Your task to perform on an android device: change the clock style Image 0: 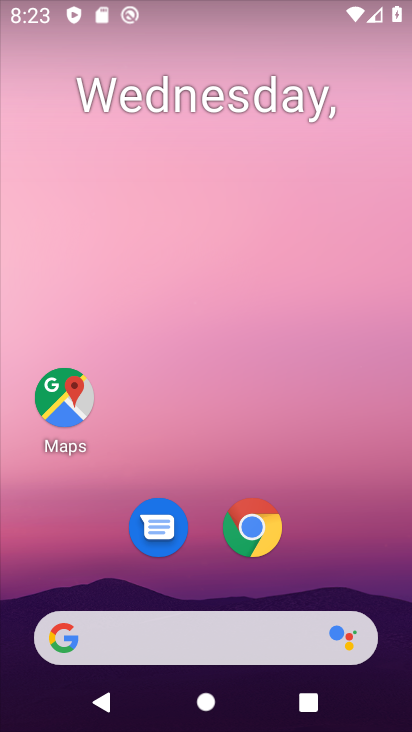
Step 0: drag from (359, 600) to (353, 111)
Your task to perform on an android device: change the clock style Image 1: 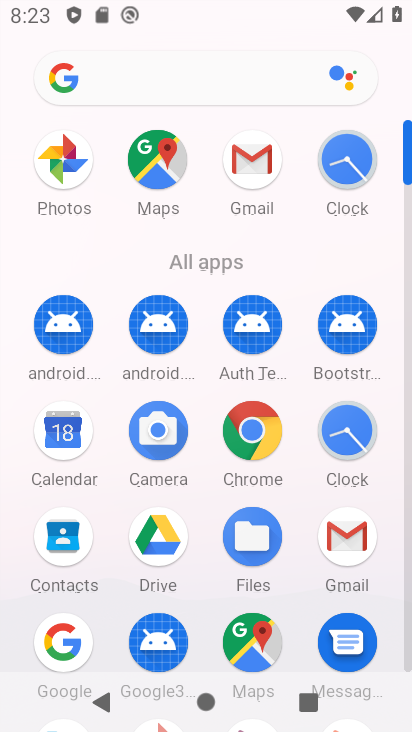
Step 1: click (338, 165)
Your task to perform on an android device: change the clock style Image 2: 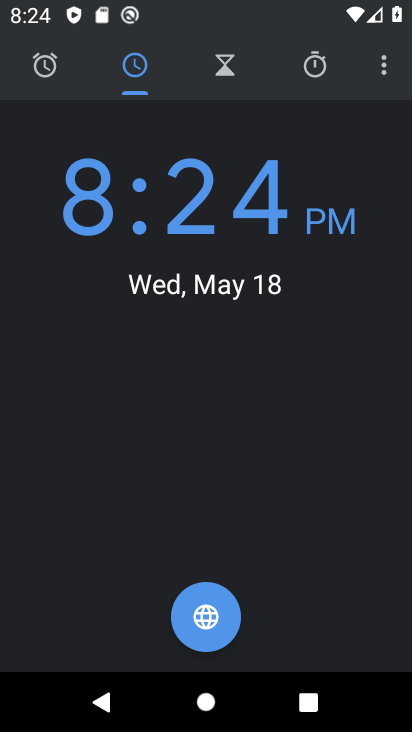
Step 2: click (378, 65)
Your task to perform on an android device: change the clock style Image 3: 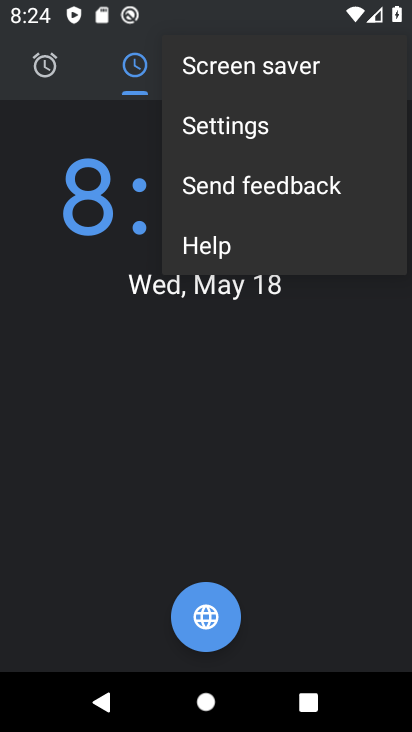
Step 3: click (245, 136)
Your task to perform on an android device: change the clock style Image 4: 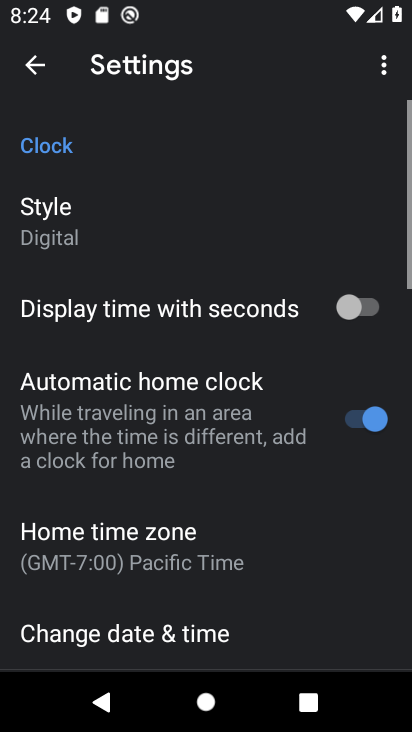
Step 4: click (64, 234)
Your task to perform on an android device: change the clock style Image 5: 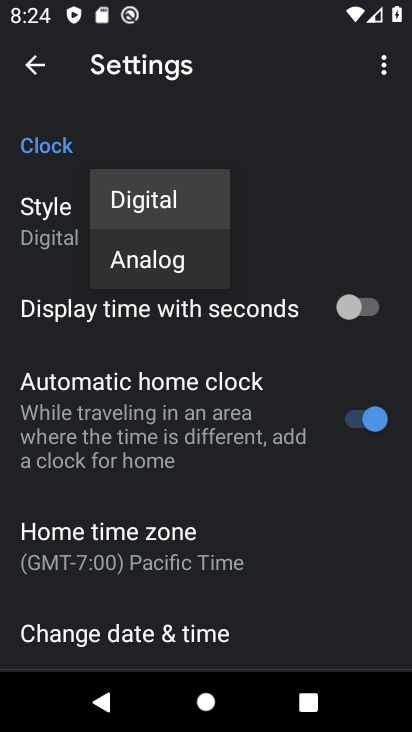
Step 5: click (119, 267)
Your task to perform on an android device: change the clock style Image 6: 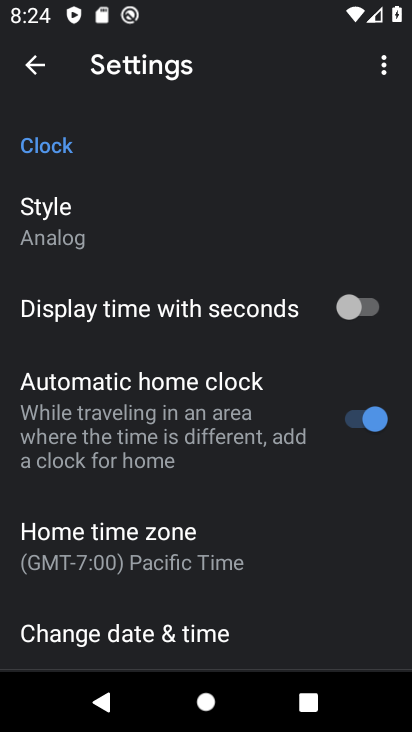
Step 6: task complete